Your task to perform on an android device: Open network settings Image 0: 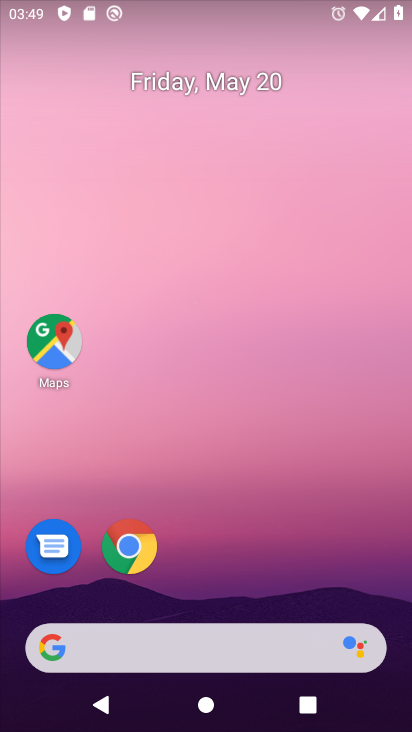
Step 0: drag from (252, 570) to (276, 103)
Your task to perform on an android device: Open network settings Image 1: 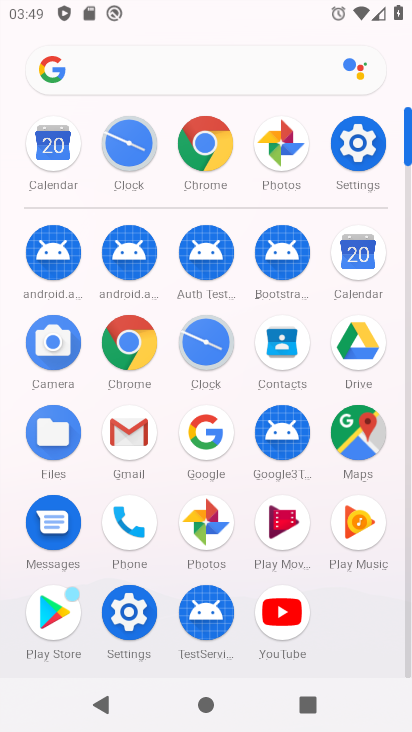
Step 1: click (352, 142)
Your task to perform on an android device: Open network settings Image 2: 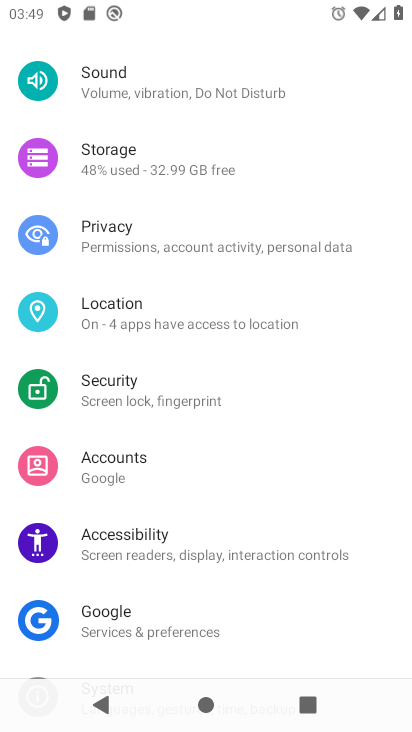
Step 2: drag from (203, 211) to (170, 642)
Your task to perform on an android device: Open network settings Image 3: 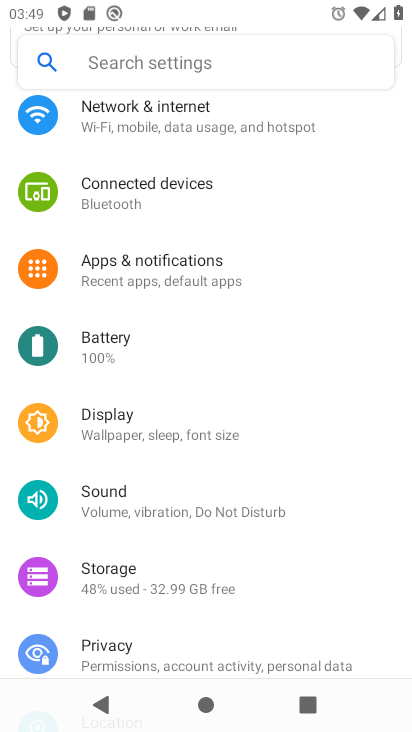
Step 3: drag from (225, 348) to (196, 602)
Your task to perform on an android device: Open network settings Image 4: 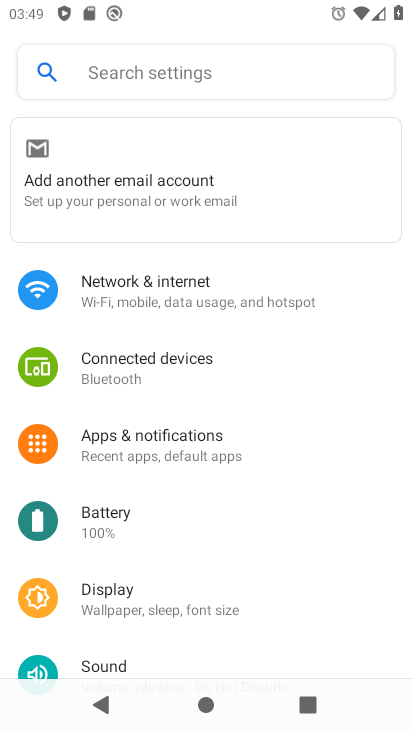
Step 4: click (192, 296)
Your task to perform on an android device: Open network settings Image 5: 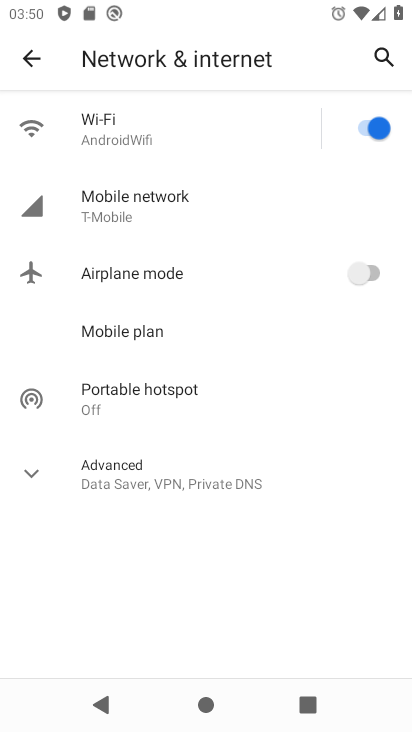
Step 5: click (152, 484)
Your task to perform on an android device: Open network settings Image 6: 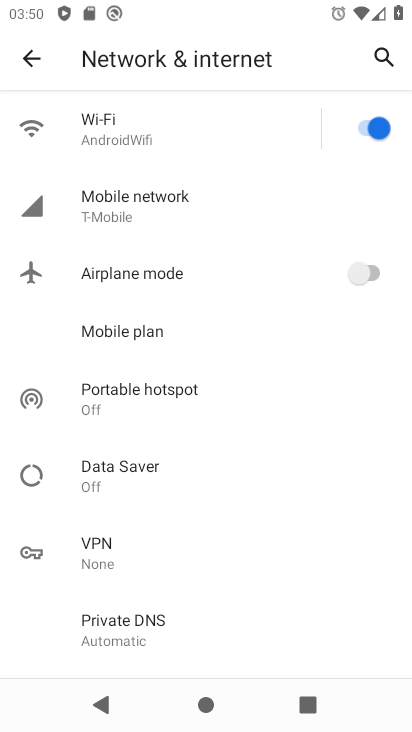
Step 6: task complete